Your task to perform on an android device: Open Reddit.com Image 0: 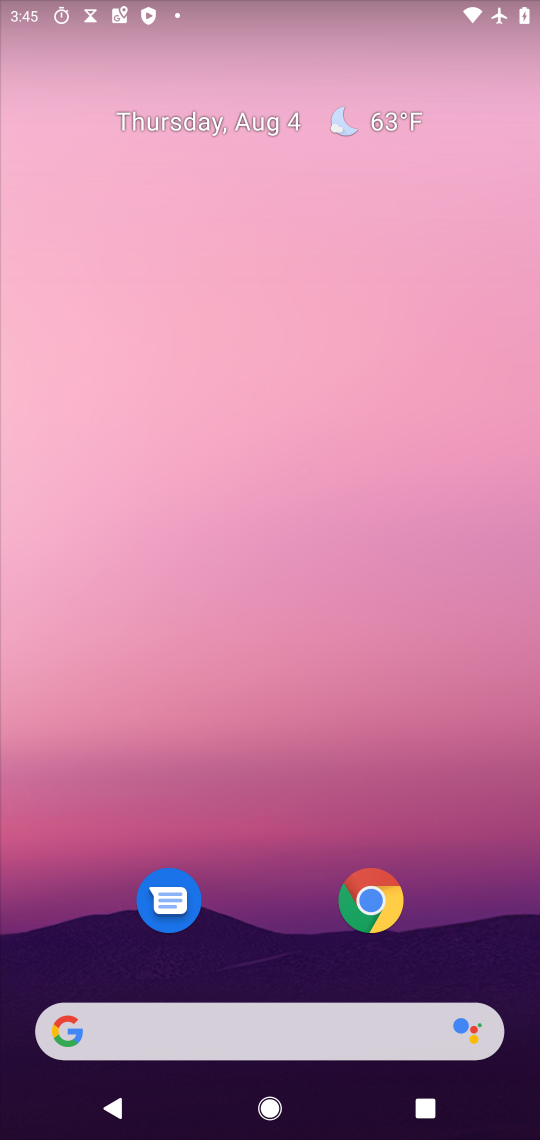
Step 0: click (393, 909)
Your task to perform on an android device: Open Reddit.com Image 1: 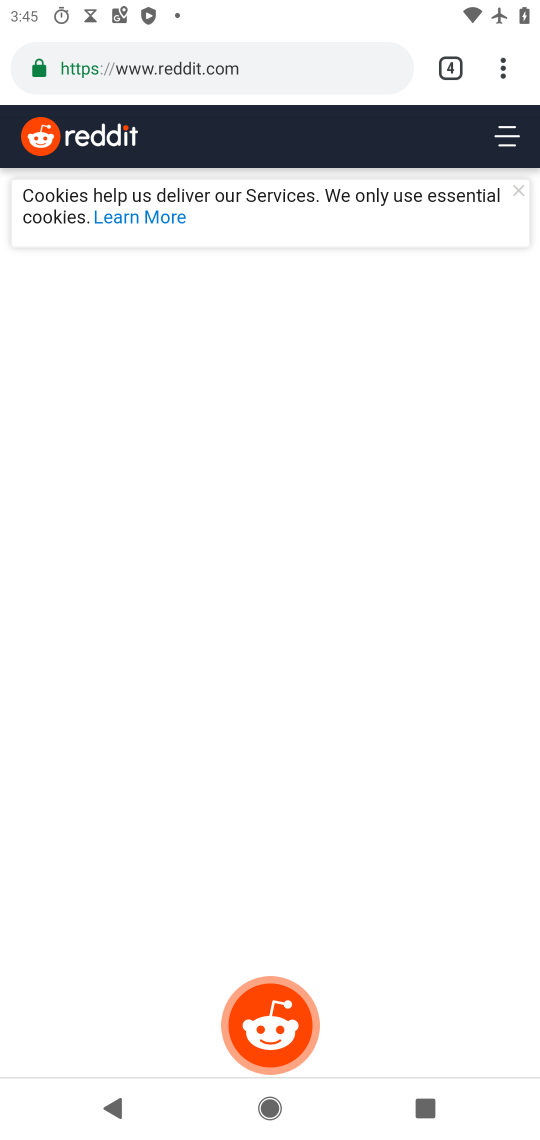
Step 1: task complete